Your task to perform on an android device: empty trash in the gmail app Image 0: 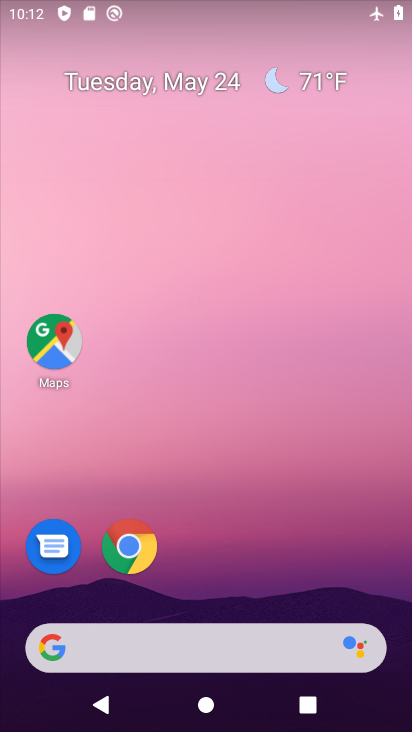
Step 0: drag from (278, 548) to (272, 140)
Your task to perform on an android device: empty trash in the gmail app Image 1: 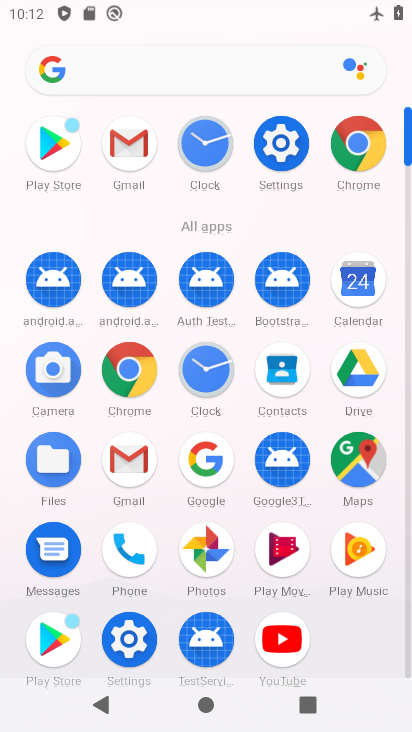
Step 1: click (121, 154)
Your task to perform on an android device: empty trash in the gmail app Image 2: 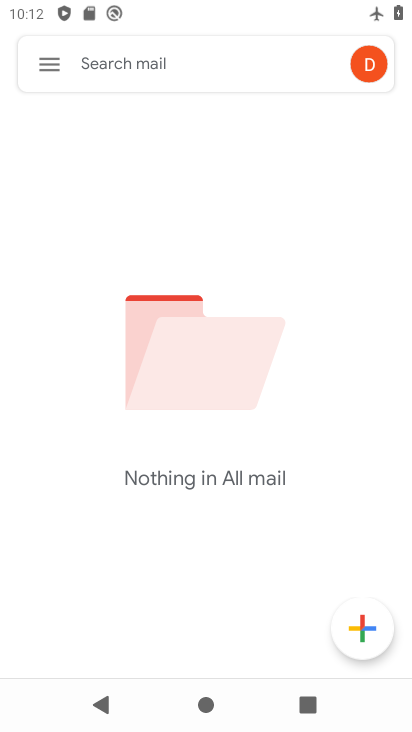
Step 2: click (43, 60)
Your task to perform on an android device: empty trash in the gmail app Image 3: 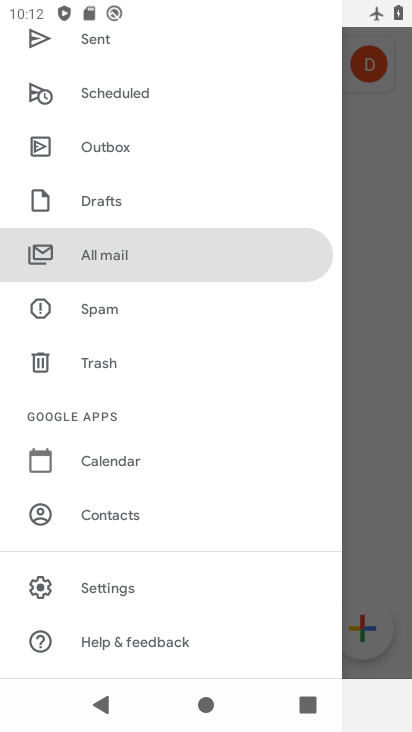
Step 3: click (116, 361)
Your task to perform on an android device: empty trash in the gmail app Image 4: 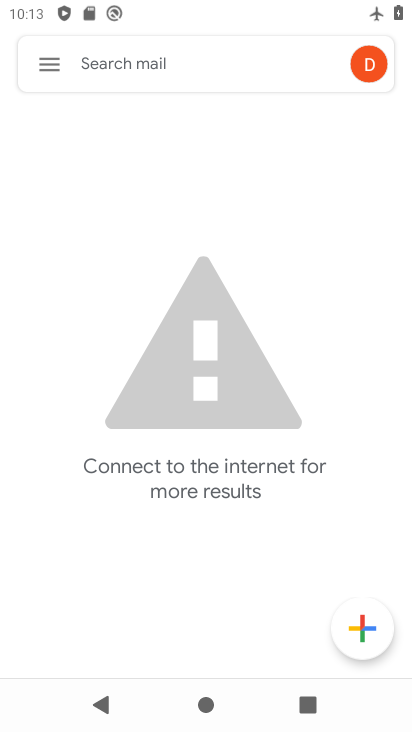
Step 4: task complete